Your task to perform on an android device: Open maps Image 0: 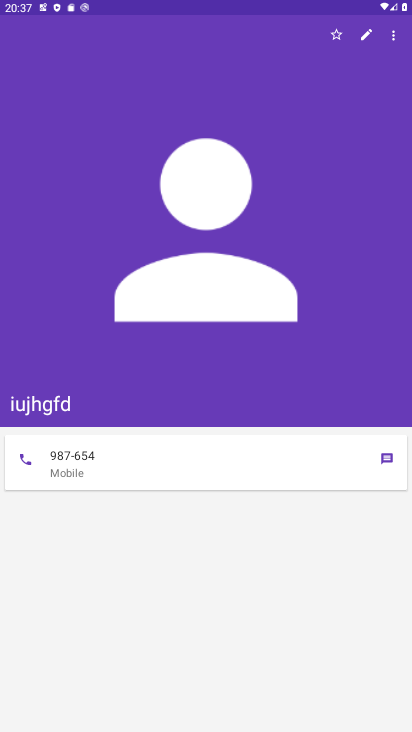
Step 0: task complete